Your task to perform on an android device: Check the weather Image 0: 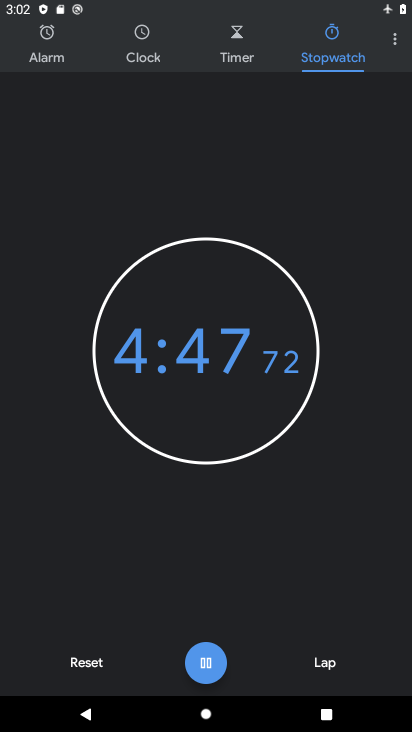
Step 0: press home button
Your task to perform on an android device: Check the weather Image 1: 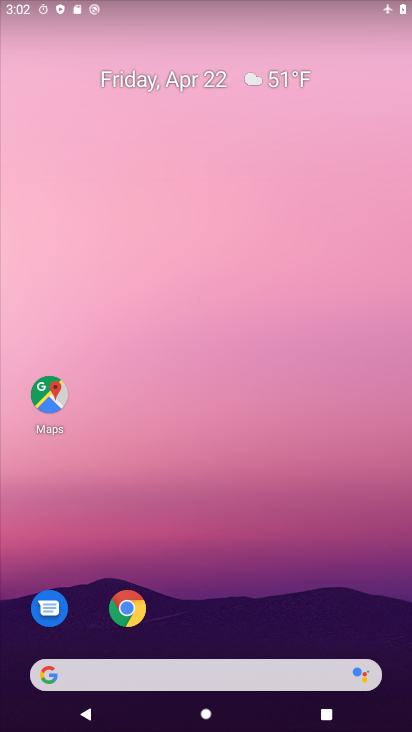
Step 1: click (289, 74)
Your task to perform on an android device: Check the weather Image 2: 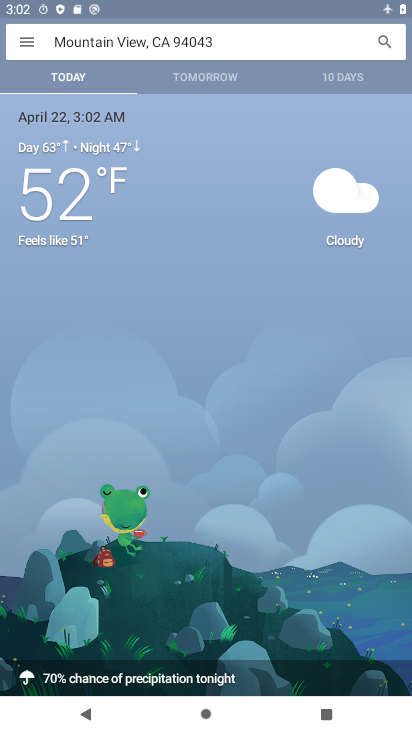
Step 2: task complete